Your task to perform on an android device: Search for sushi restaurants on Maps Image 0: 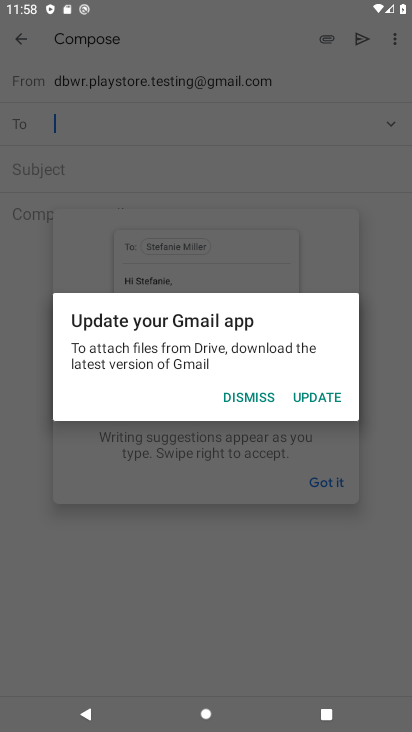
Step 0: press back button
Your task to perform on an android device: Search for sushi restaurants on Maps Image 1: 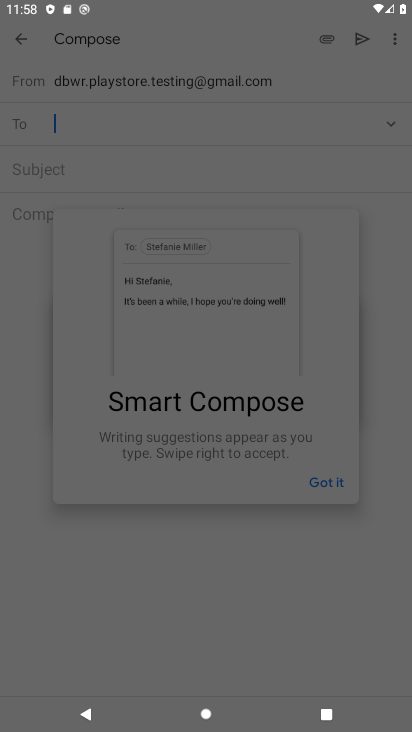
Step 1: press back button
Your task to perform on an android device: Search for sushi restaurants on Maps Image 2: 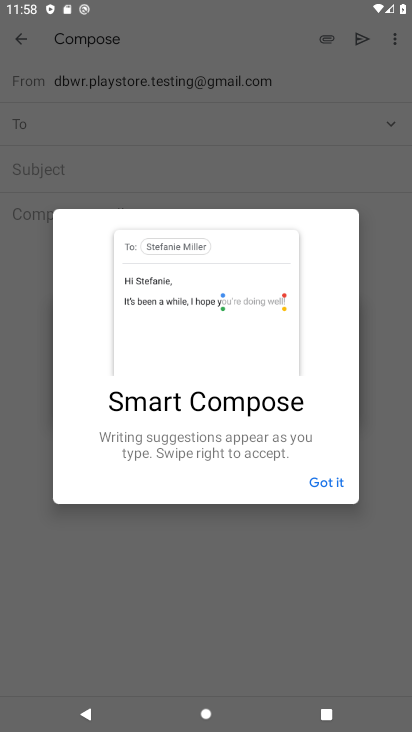
Step 2: press home button
Your task to perform on an android device: Search for sushi restaurants on Maps Image 3: 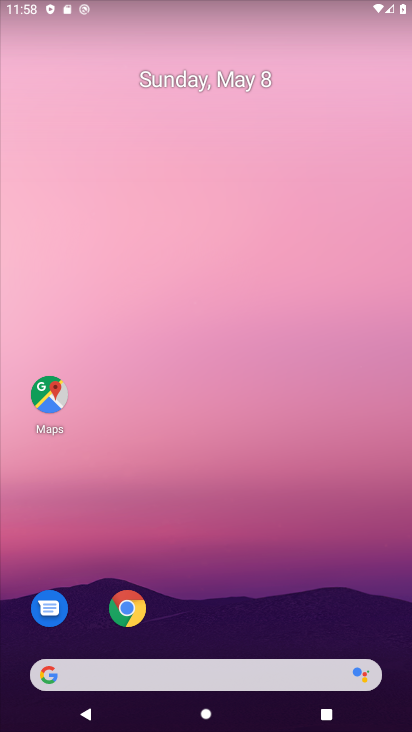
Step 3: click (40, 400)
Your task to perform on an android device: Search for sushi restaurants on Maps Image 4: 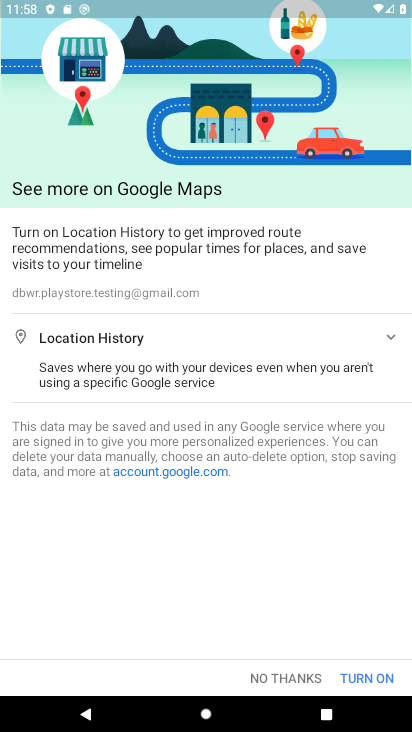
Step 4: click (290, 675)
Your task to perform on an android device: Search for sushi restaurants on Maps Image 5: 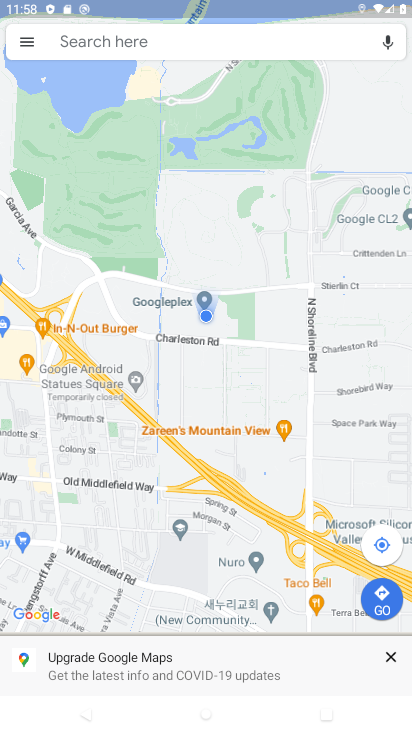
Step 5: click (240, 40)
Your task to perform on an android device: Search for sushi restaurants on Maps Image 6: 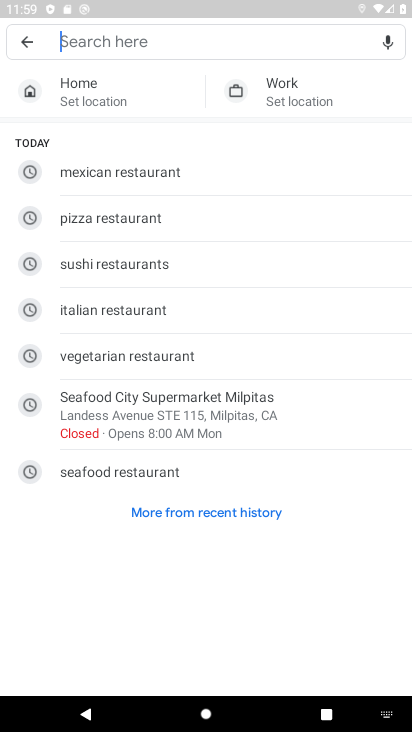
Step 6: type "sushi restaurants "
Your task to perform on an android device: Search for sushi restaurants on Maps Image 7: 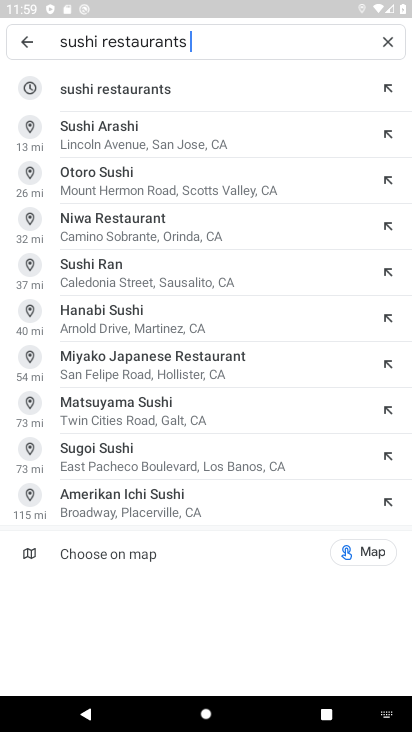
Step 7: click (280, 89)
Your task to perform on an android device: Search for sushi restaurants on Maps Image 8: 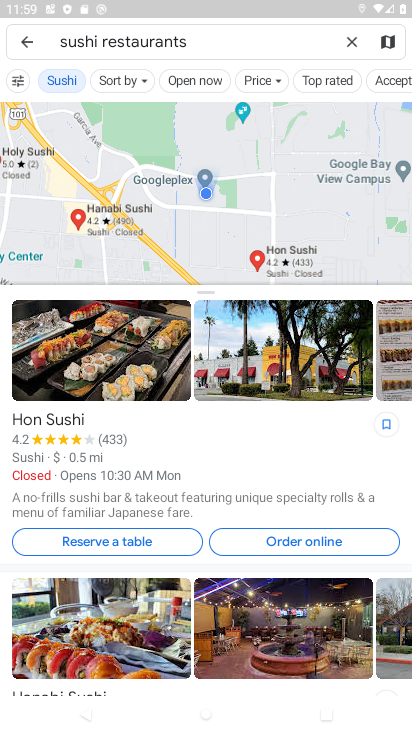
Step 8: task complete